Your task to perform on an android device: Go to Android settings Image 0: 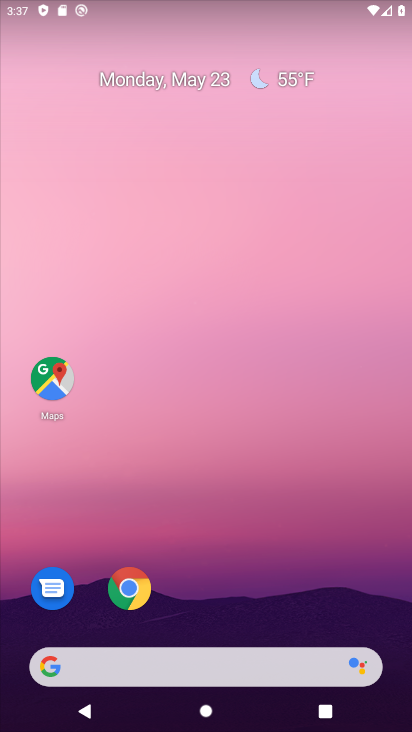
Step 0: drag from (224, 577) to (264, 91)
Your task to perform on an android device: Go to Android settings Image 1: 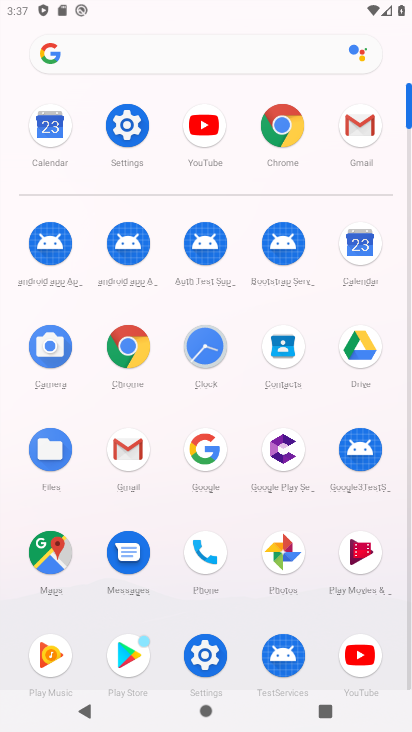
Step 1: click (124, 124)
Your task to perform on an android device: Go to Android settings Image 2: 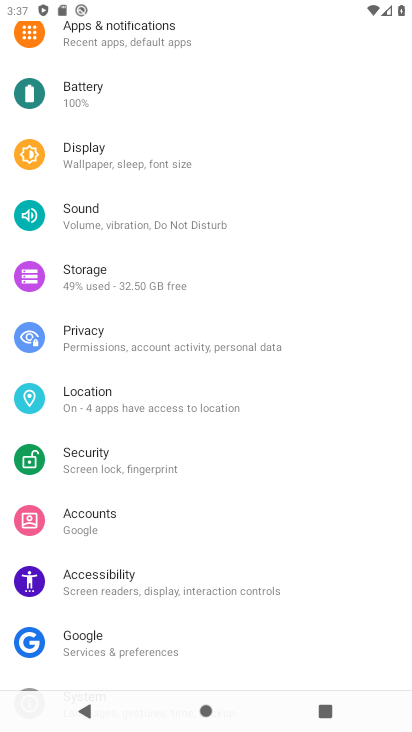
Step 2: task complete